Your task to perform on an android device: all mails in gmail Image 0: 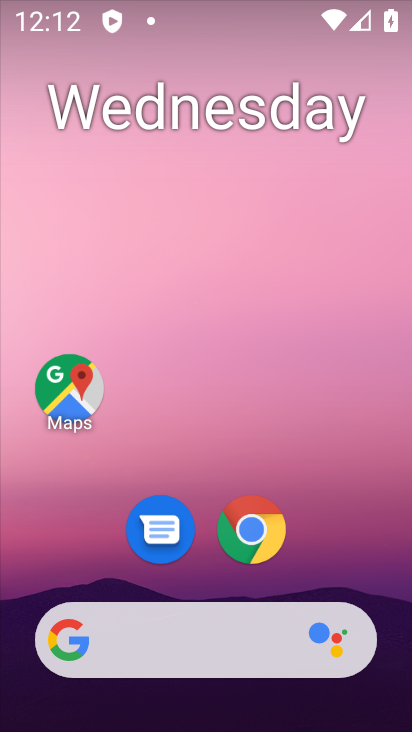
Step 0: click (366, 46)
Your task to perform on an android device: all mails in gmail Image 1: 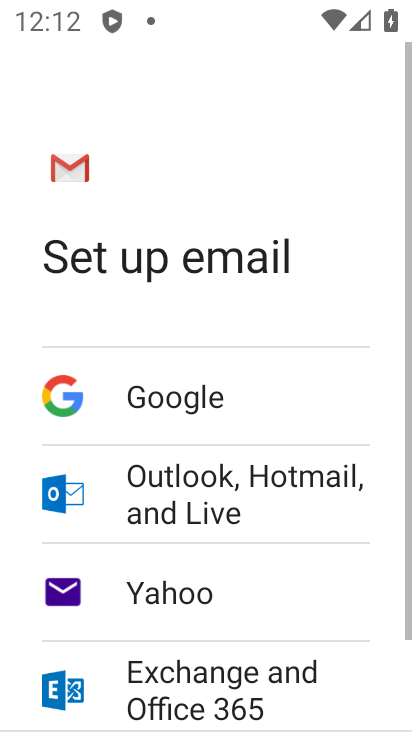
Step 1: press home button
Your task to perform on an android device: all mails in gmail Image 2: 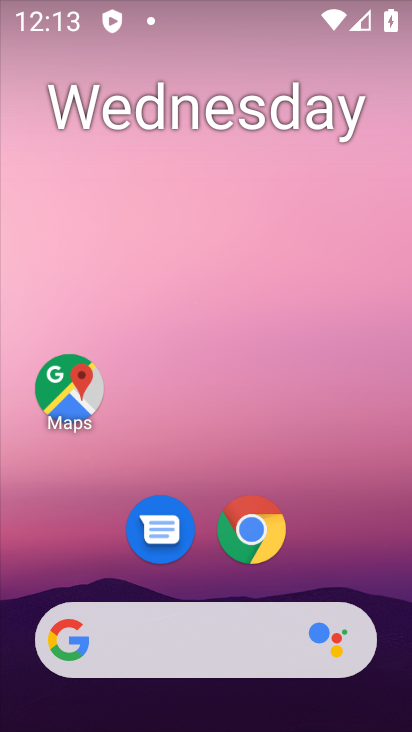
Step 2: drag from (317, 534) to (364, 84)
Your task to perform on an android device: all mails in gmail Image 3: 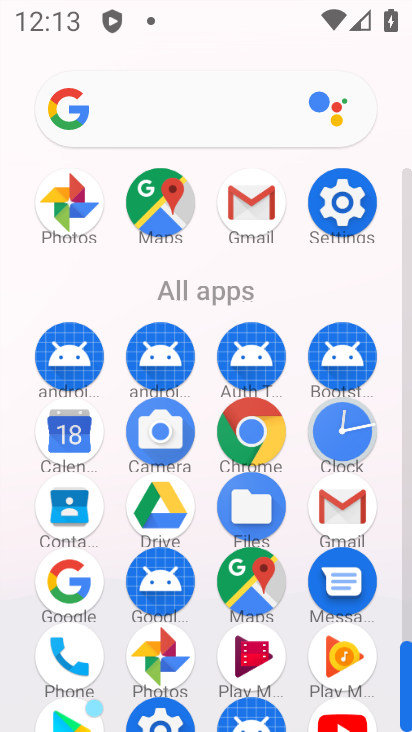
Step 3: click (351, 510)
Your task to perform on an android device: all mails in gmail Image 4: 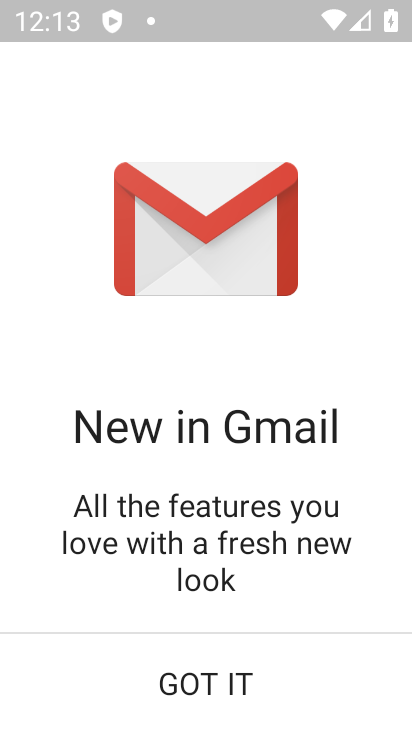
Step 4: click (241, 672)
Your task to perform on an android device: all mails in gmail Image 5: 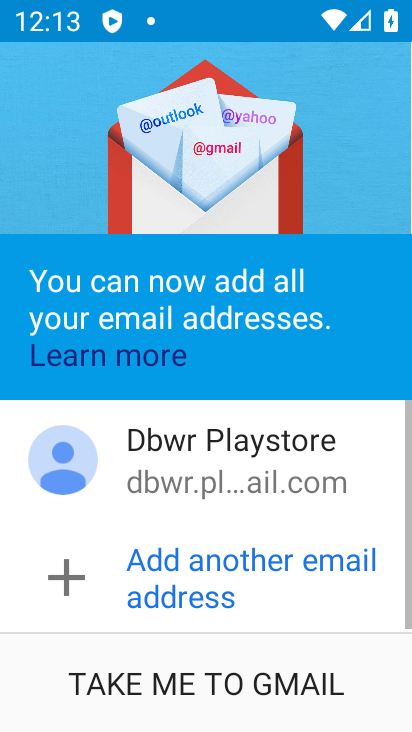
Step 5: click (240, 687)
Your task to perform on an android device: all mails in gmail Image 6: 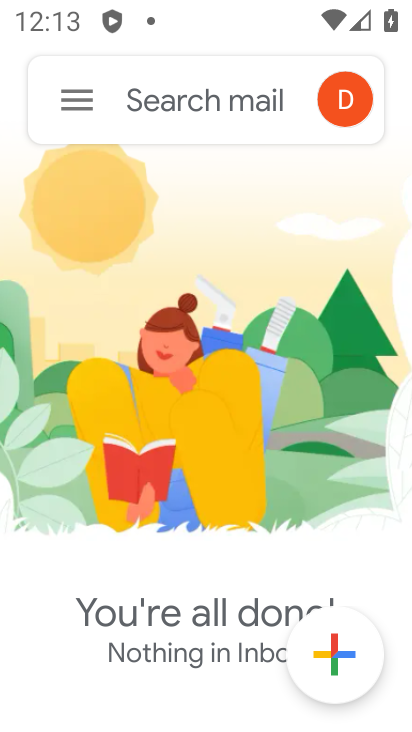
Step 6: click (68, 101)
Your task to perform on an android device: all mails in gmail Image 7: 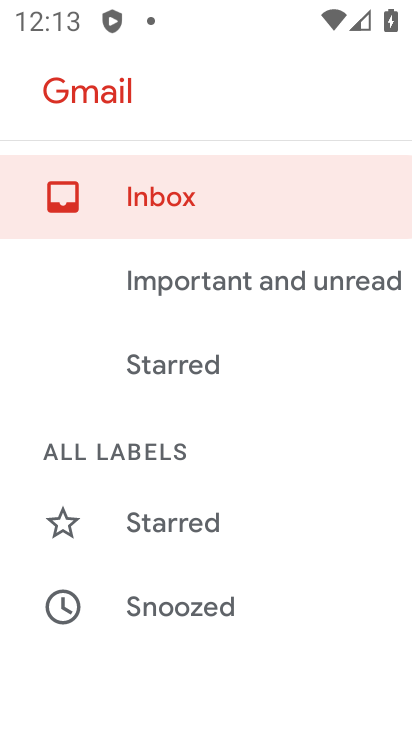
Step 7: drag from (206, 624) to (235, 360)
Your task to perform on an android device: all mails in gmail Image 8: 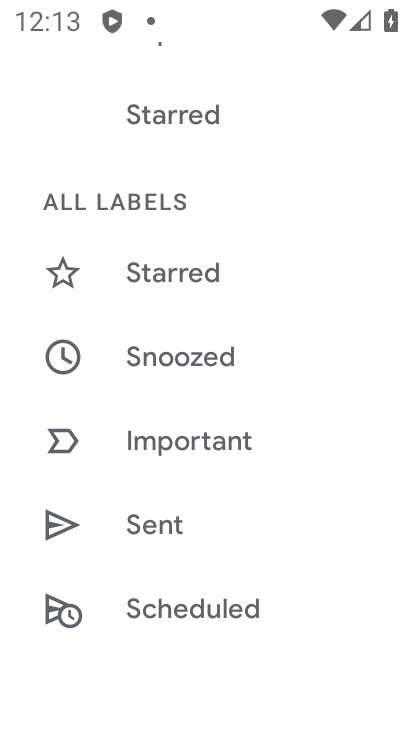
Step 8: drag from (194, 565) to (220, 269)
Your task to perform on an android device: all mails in gmail Image 9: 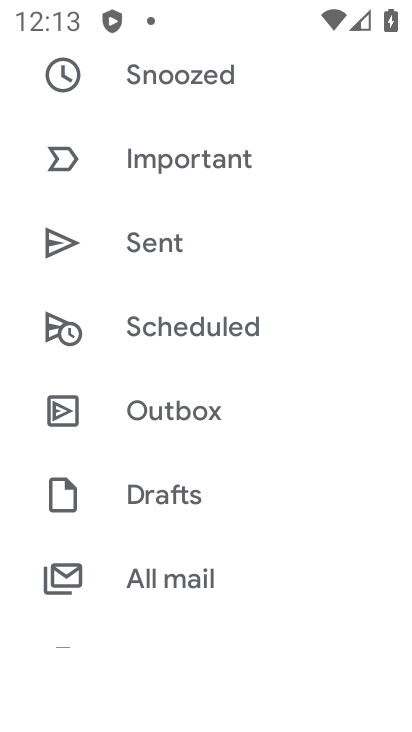
Step 9: click (212, 591)
Your task to perform on an android device: all mails in gmail Image 10: 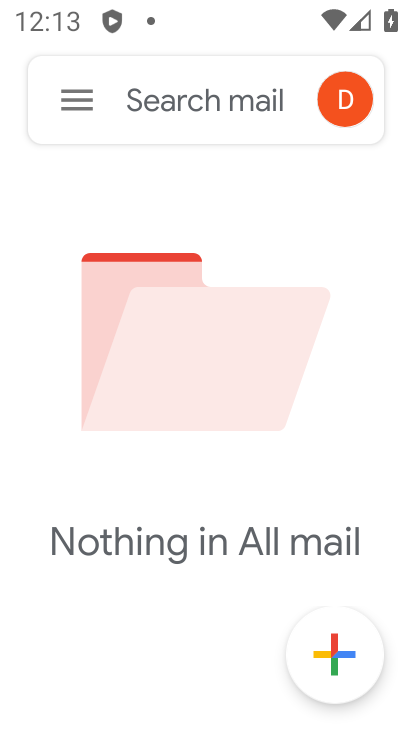
Step 10: task complete